Your task to perform on an android device: Show the shopping cart on bestbuy. Add "acer nitro" to the cart on bestbuy Image 0: 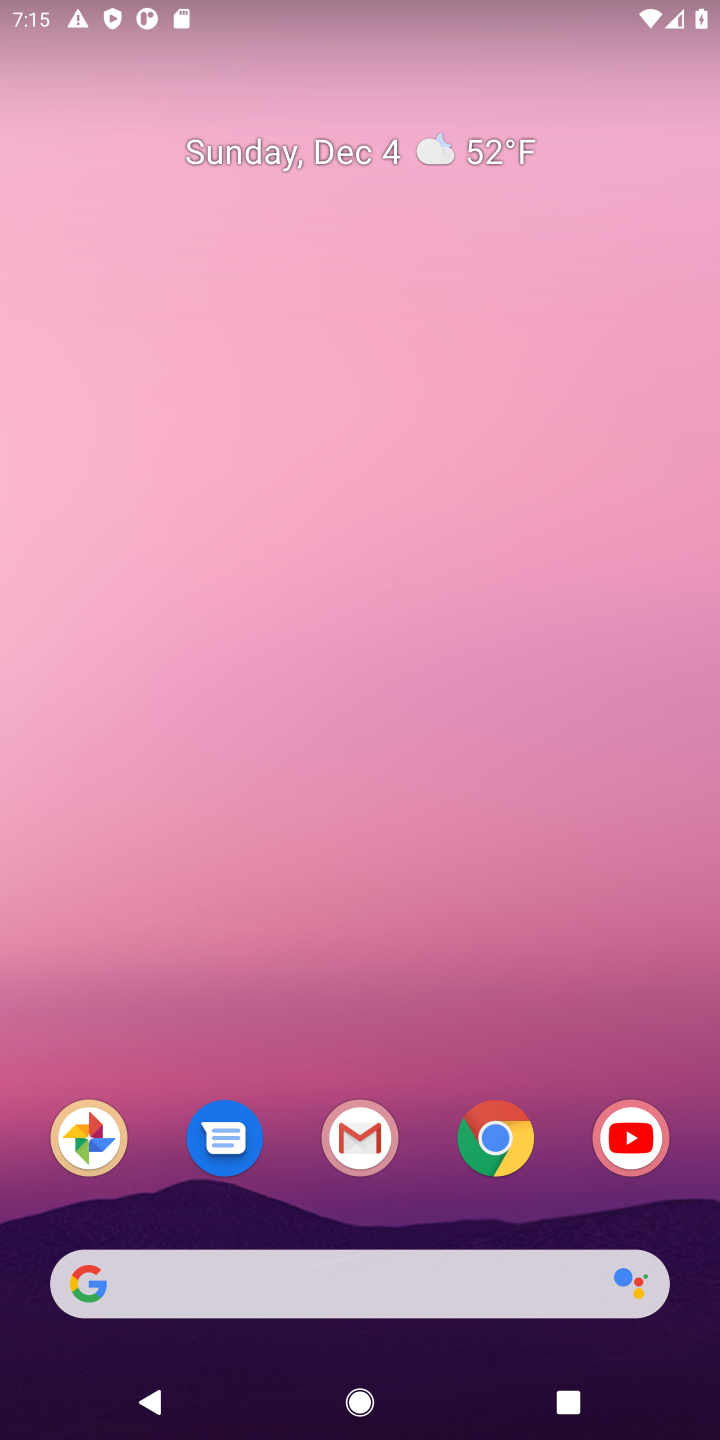
Step 0: click (503, 1139)
Your task to perform on an android device: Show the shopping cart on bestbuy. Add "acer nitro" to the cart on bestbuy Image 1: 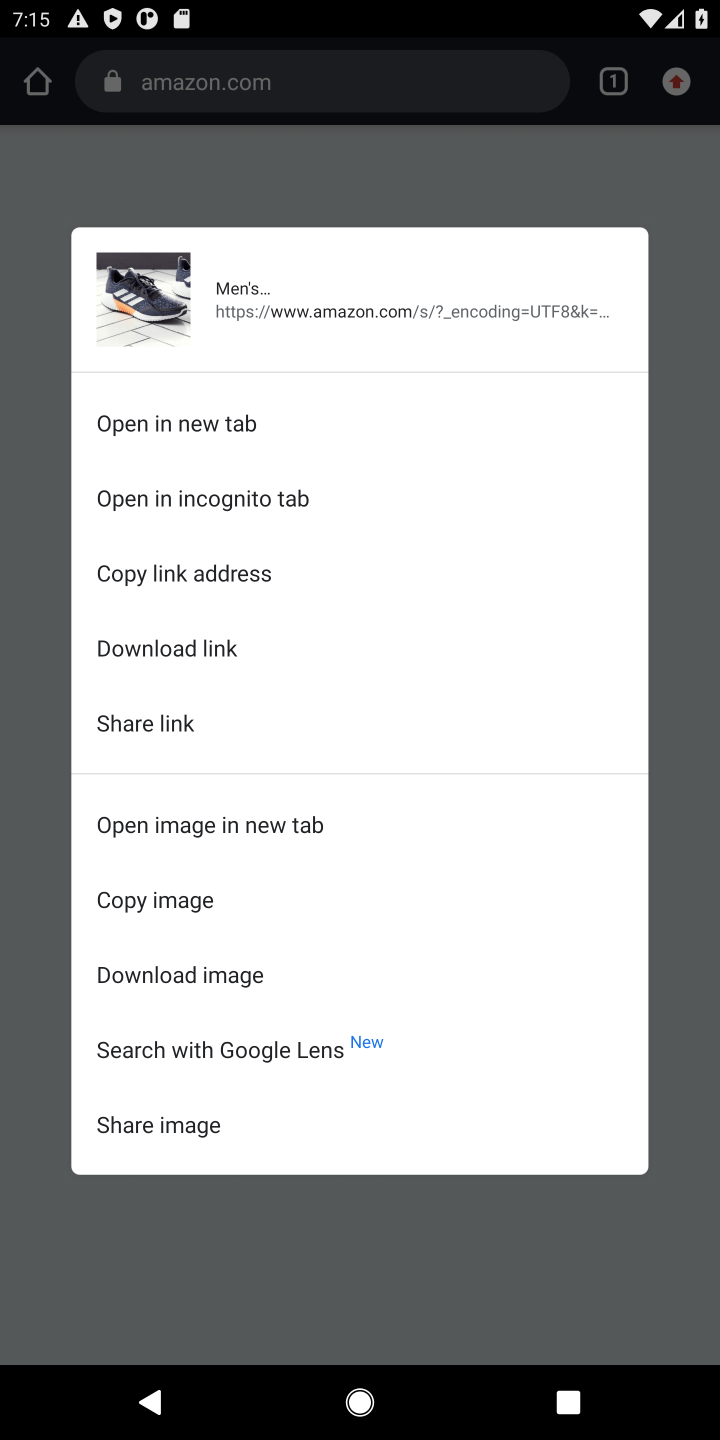
Step 1: click (512, 1251)
Your task to perform on an android device: Show the shopping cart on bestbuy. Add "acer nitro" to the cart on bestbuy Image 2: 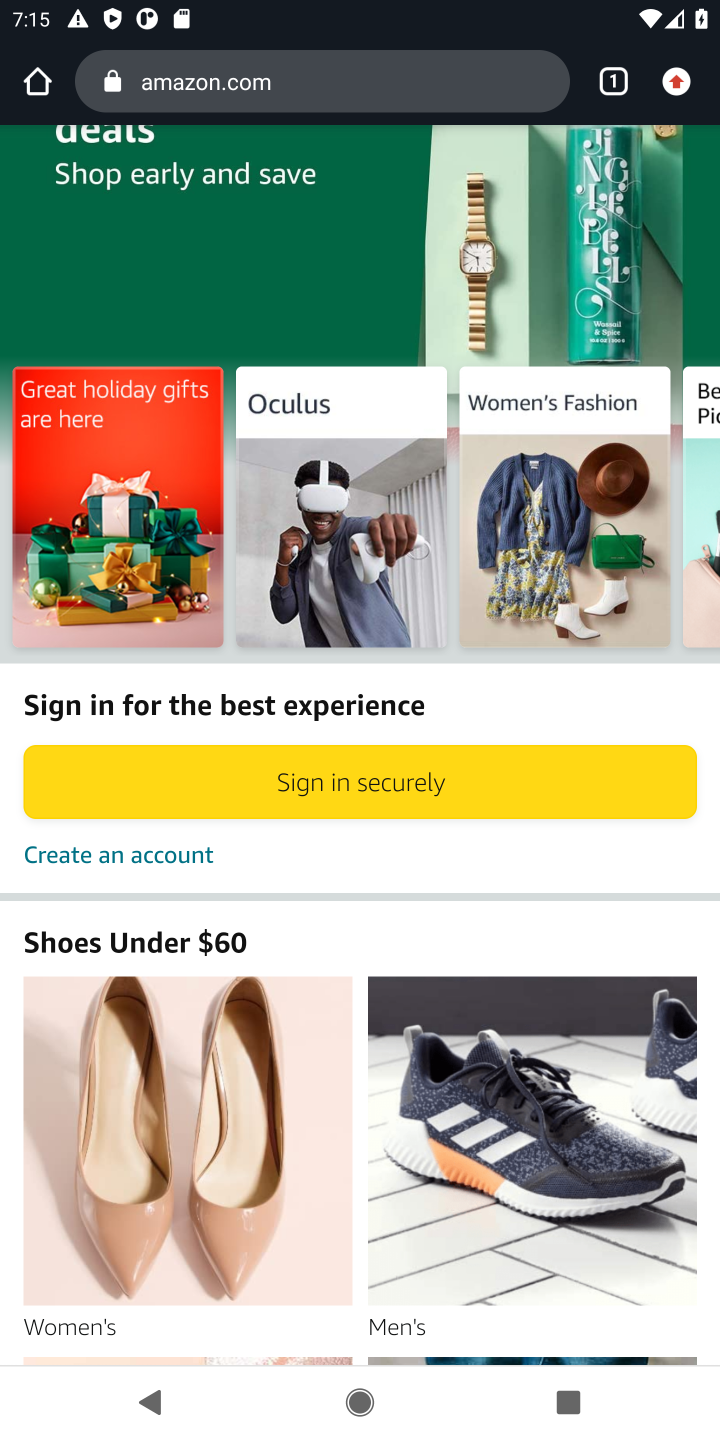
Step 2: click (512, 80)
Your task to perform on an android device: Show the shopping cart on bestbuy. Add "acer nitro" to the cart on bestbuy Image 3: 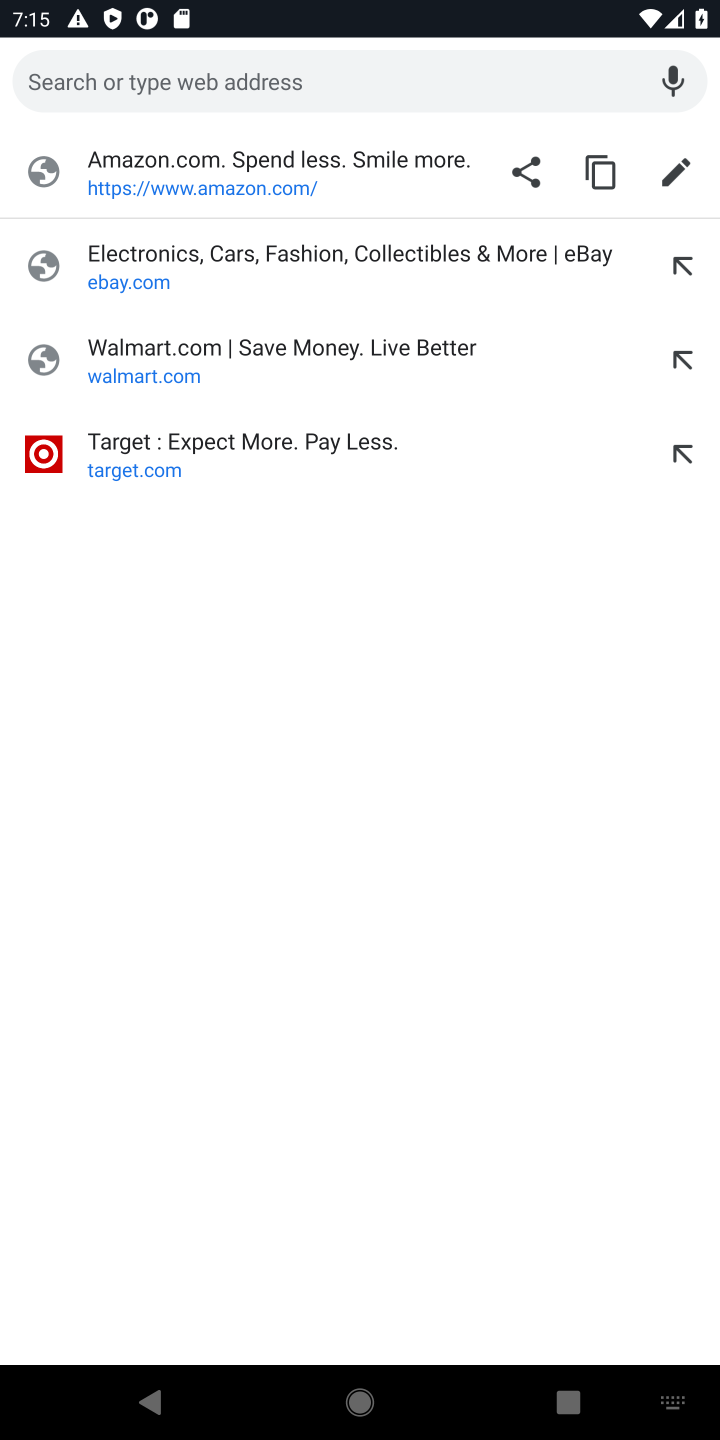
Step 3: type "bestbuy"
Your task to perform on an android device: Show the shopping cart on bestbuy. Add "acer nitro" to the cart on bestbuy Image 4: 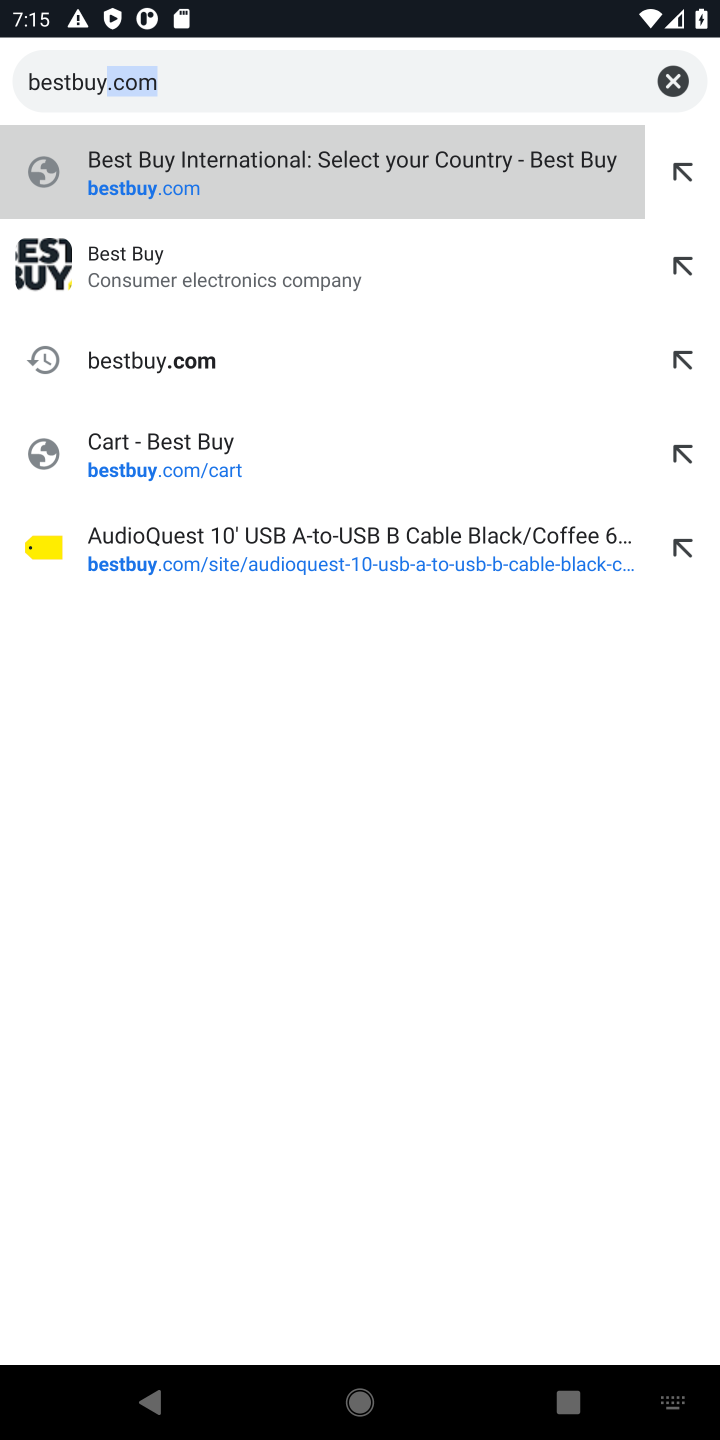
Step 4: press enter
Your task to perform on an android device: Show the shopping cart on bestbuy. Add "acer nitro" to the cart on bestbuy Image 5: 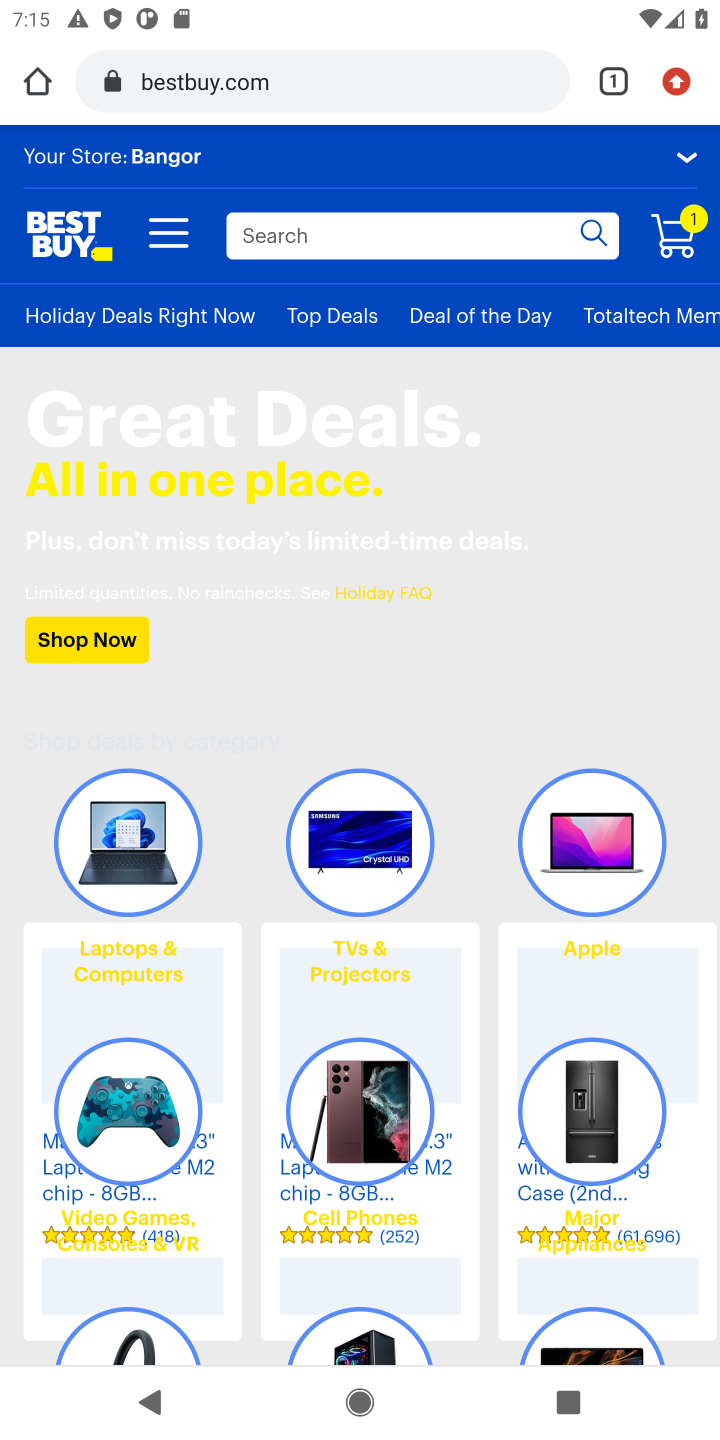
Step 5: click (401, 229)
Your task to perform on an android device: Show the shopping cart on bestbuy. Add "acer nitro" to the cart on bestbuy Image 6: 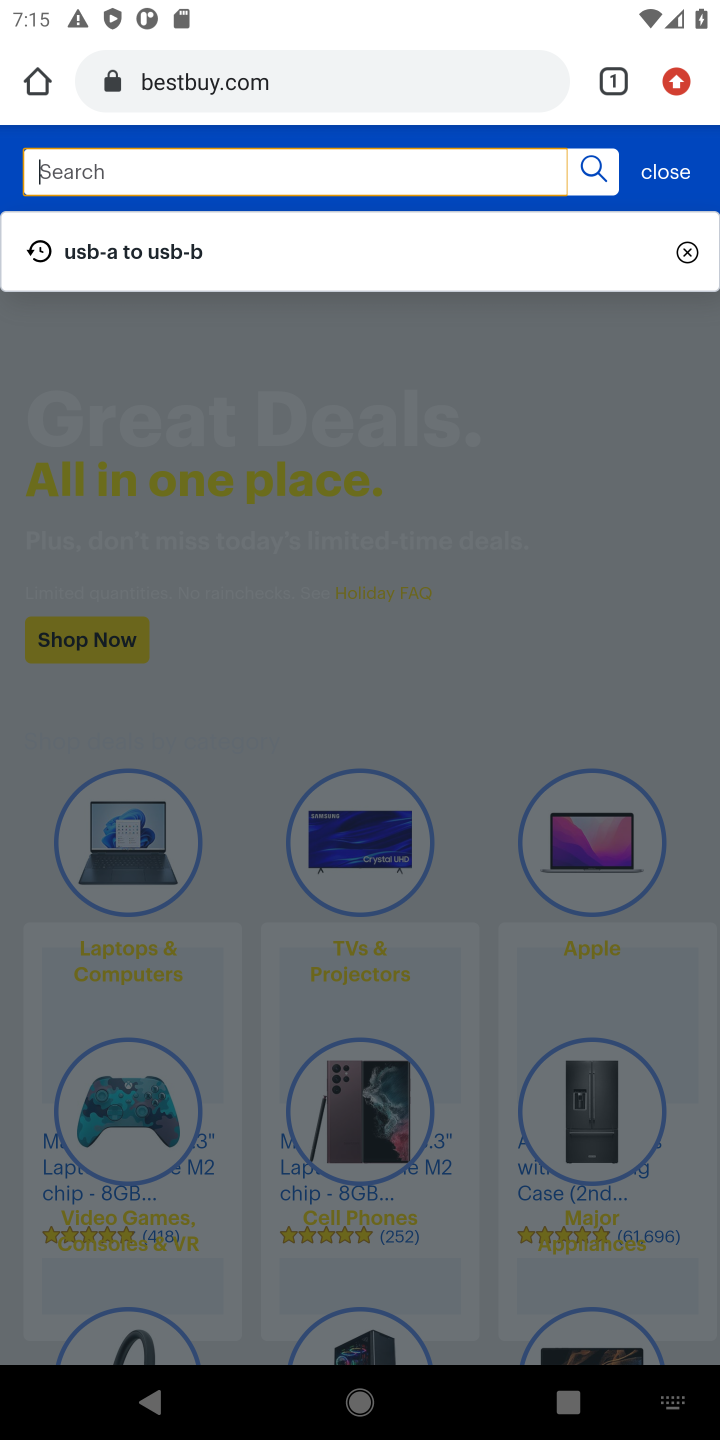
Step 6: press enter
Your task to perform on an android device: Show the shopping cart on bestbuy. Add "acer nitro" to the cart on bestbuy Image 7: 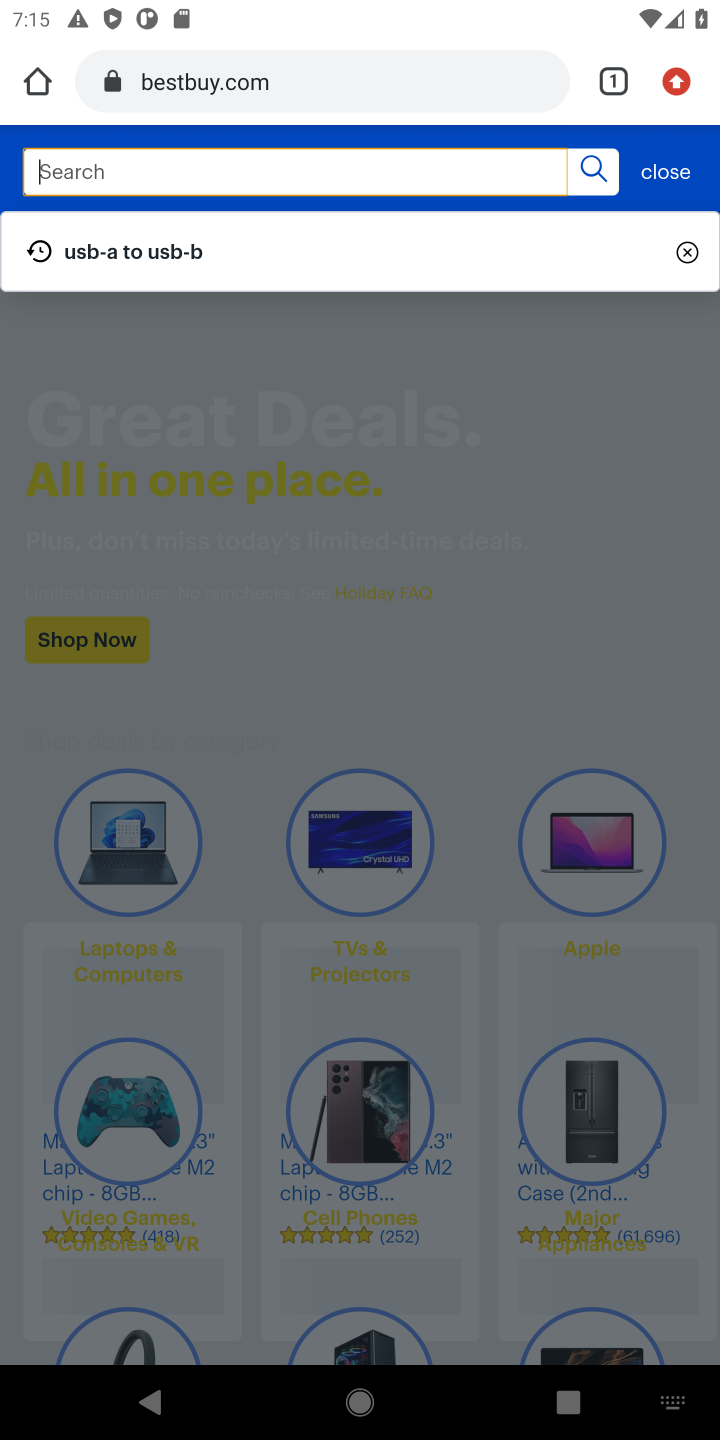
Step 7: type "acer nitro"
Your task to perform on an android device: Show the shopping cart on bestbuy. Add "acer nitro" to the cart on bestbuy Image 8: 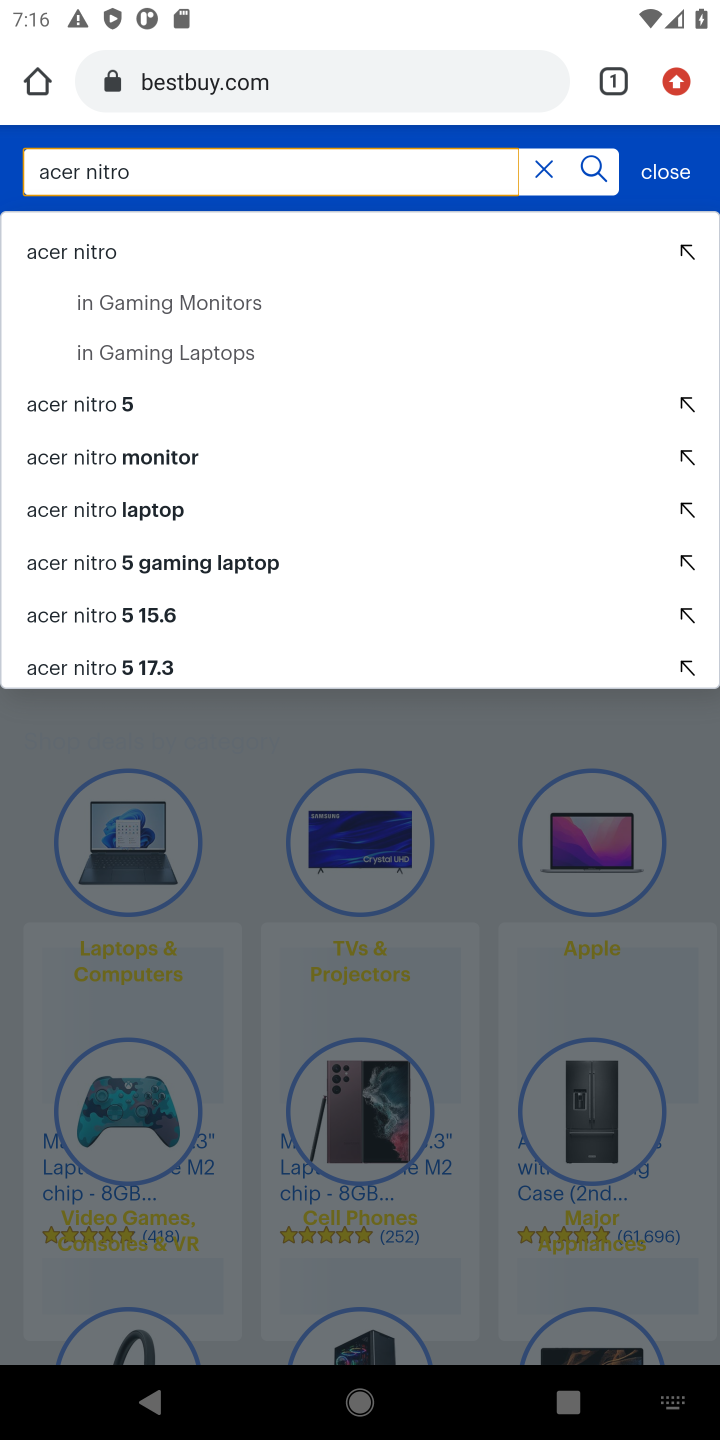
Step 8: click (79, 251)
Your task to perform on an android device: Show the shopping cart on bestbuy. Add "acer nitro" to the cart on bestbuy Image 9: 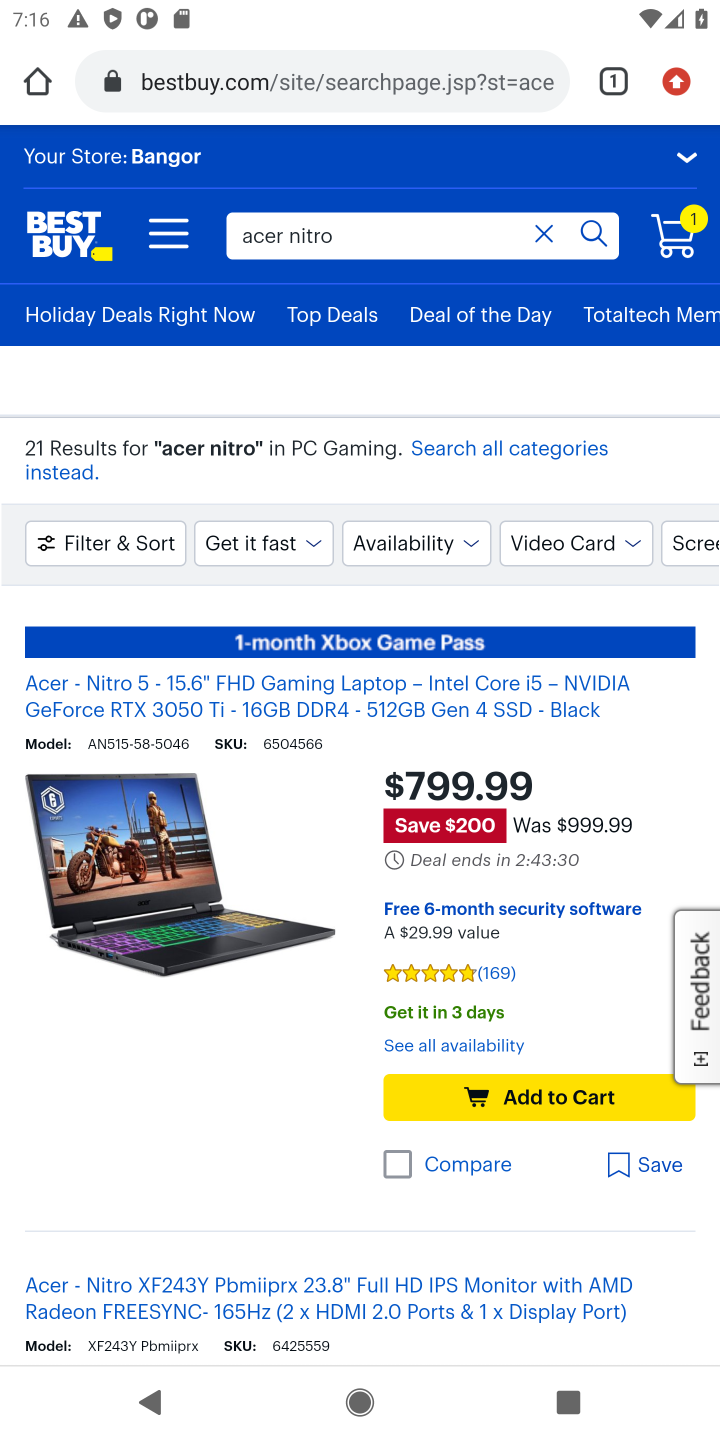
Step 9: click (125, 843)
Your task to perform on an android device: Show the shopping cart on bestbuy. Add "acer nitro" to the cart on bestbuy Image 10: 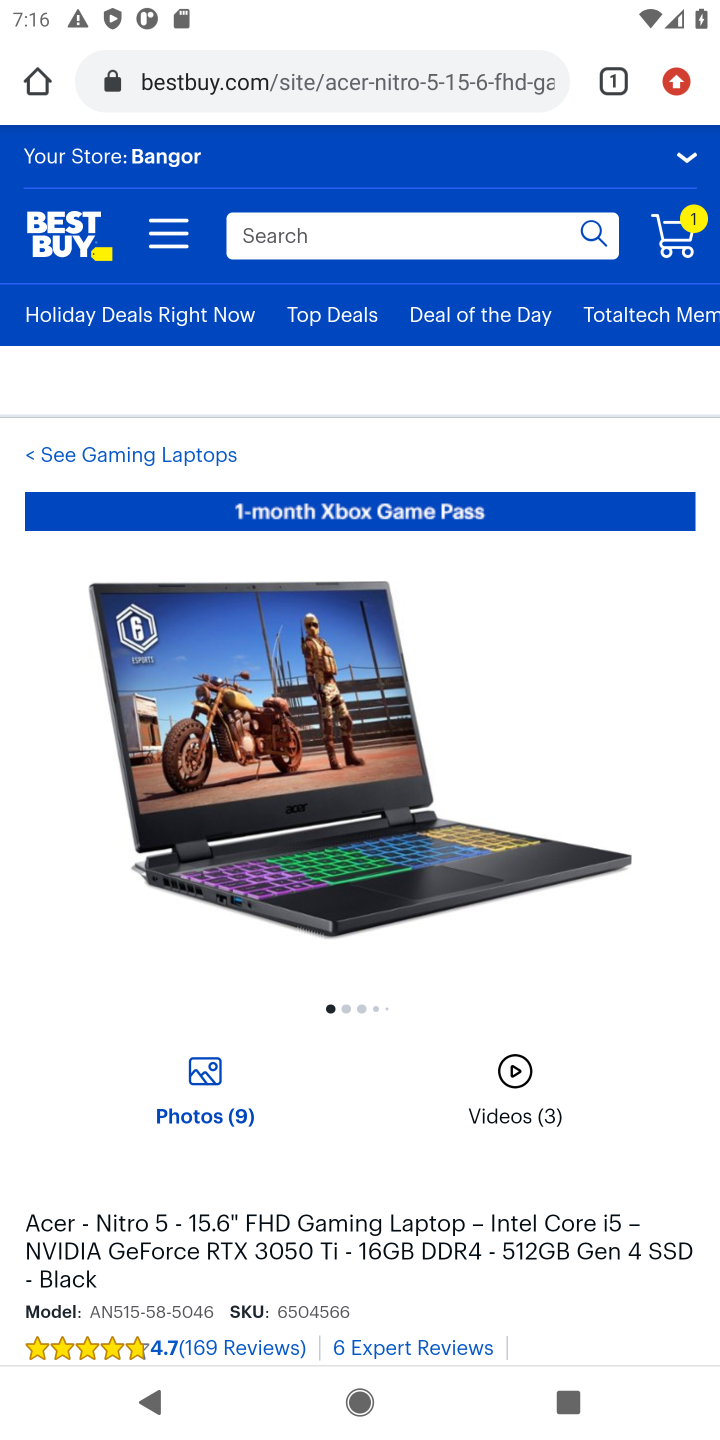
Step 10: drag from (617, 872) to (632, 217)
Your task to perform on an android device: Show the shopping cart on bestbuy. Add "acer nitro" to the cart on bestbuy Image 11: 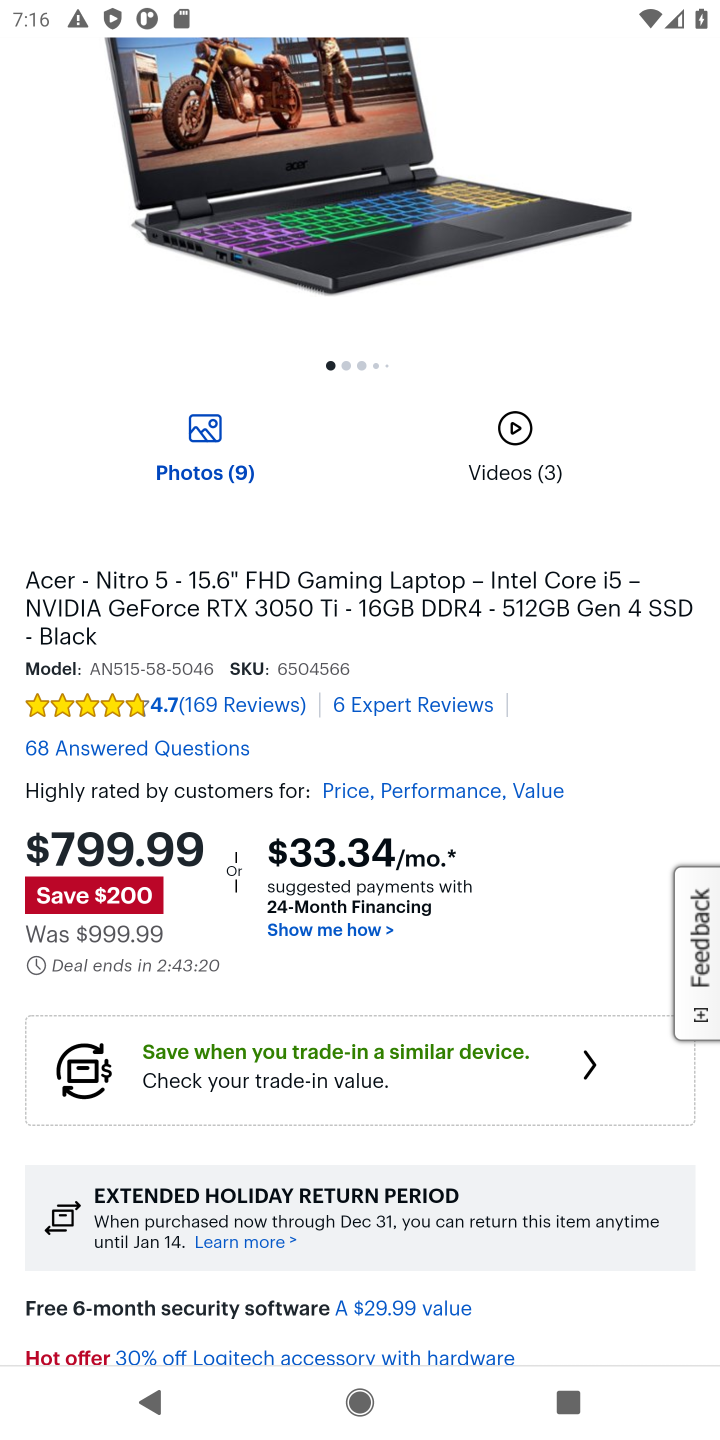
Step 11: drag from (573, 720) to (559, 217)
Your task to perform on an android device: Show the shopping cart on bestbuy. Add "acer nitro" to the cart on bestbuy Image 12: 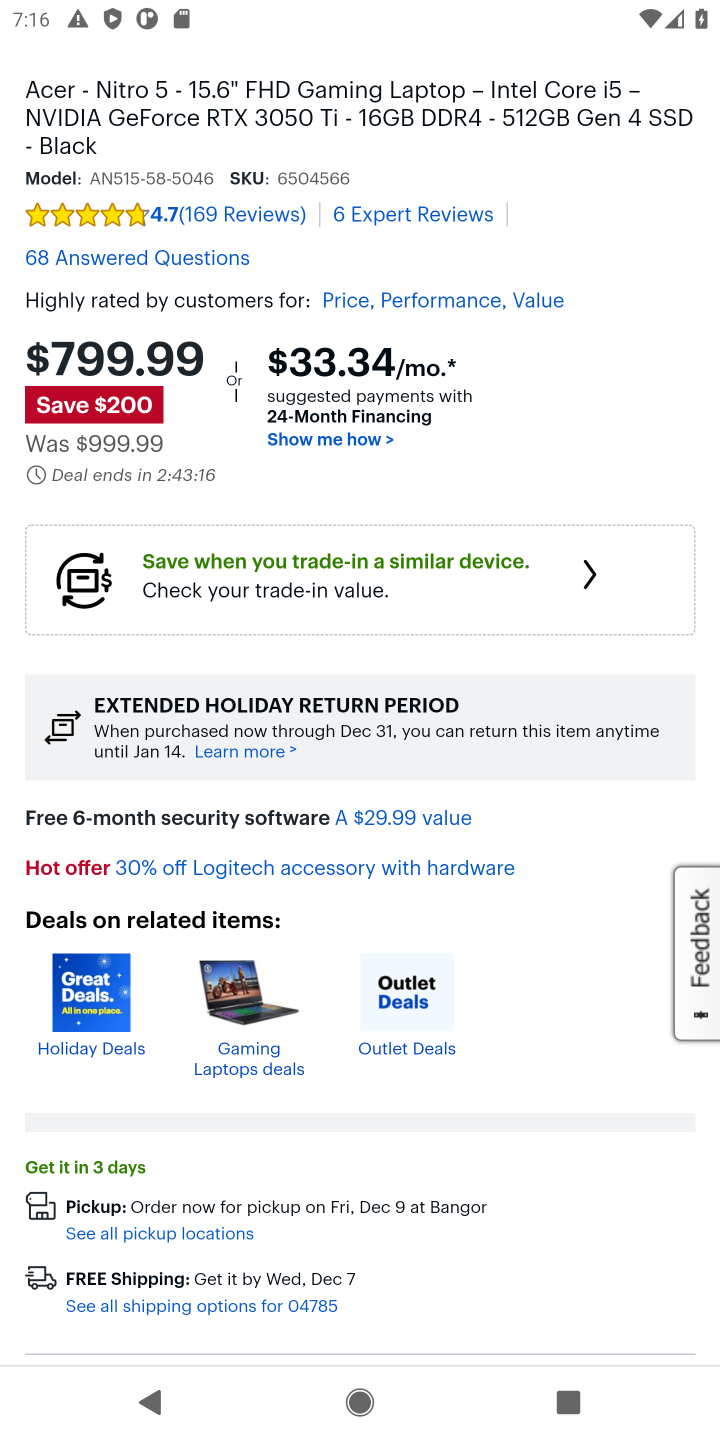
Step 12: drag from (583, 1009) to (582, 116)
Your task to perform on an android device: Show the shopping cart on bestbuy. Add "acer nitro" to the cart on bestbuy Image 13: 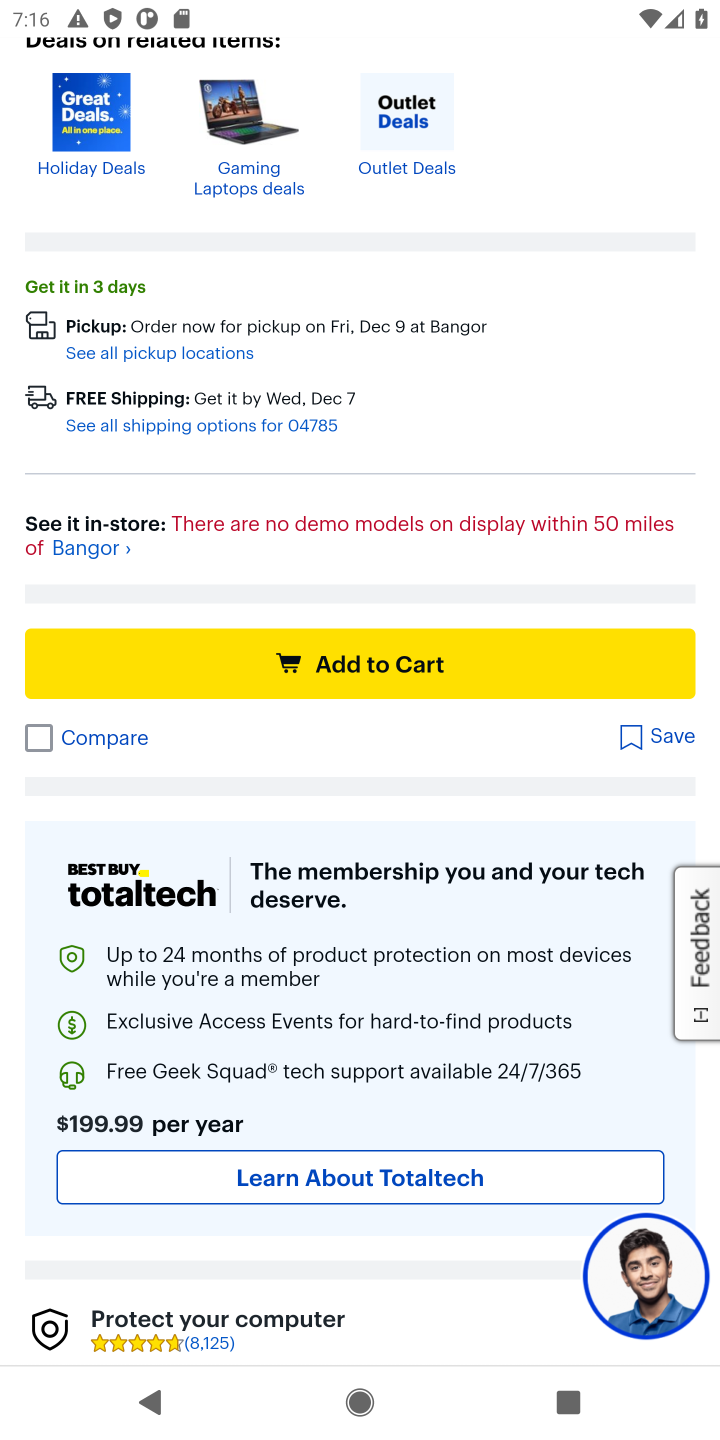
Step 13: click (399, 657)
Your task to perform on an android device: Show the shopping cart on bestbuy. Add "acer nitro" to the cart on bestbuy Image 14: 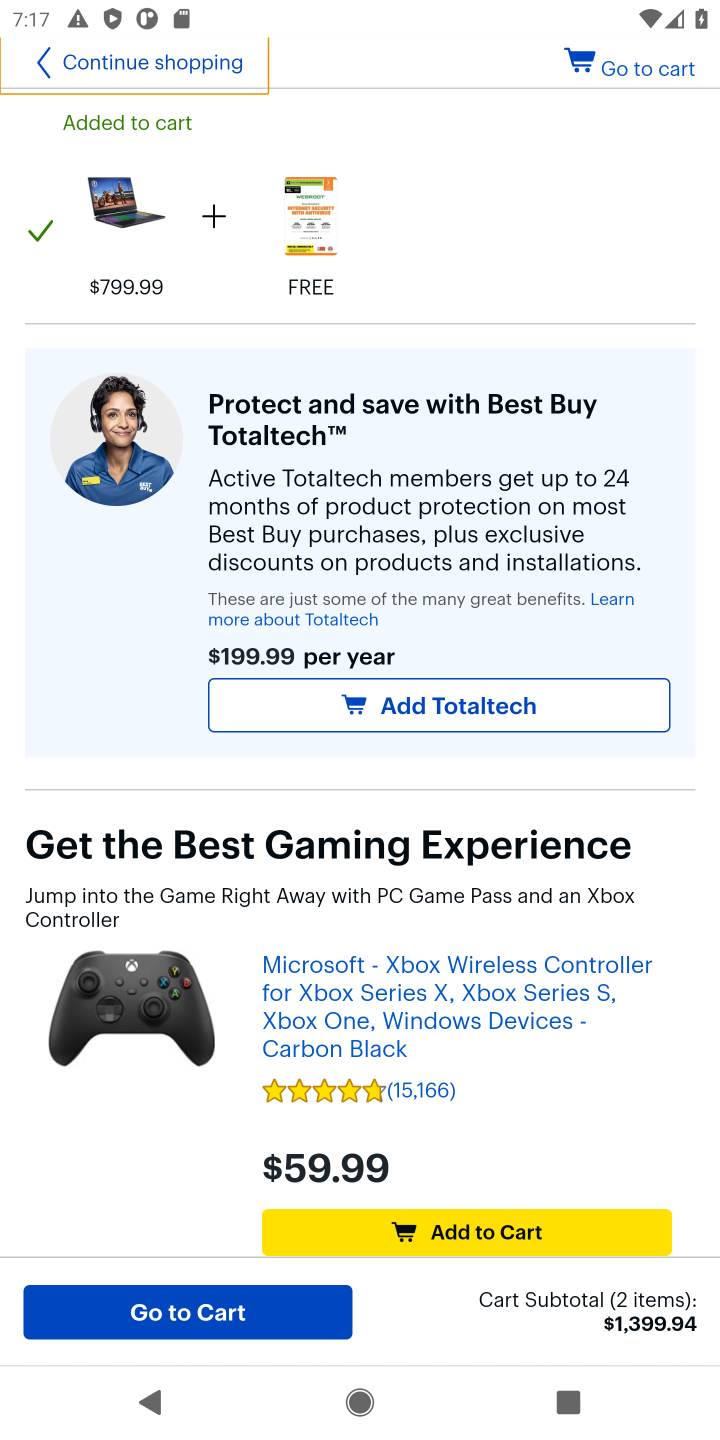
Step 14: click (221, 1306)
Your task to perform on an android device: Show the shopping cart on bestbuy. Add "acer nitro" to the cart on bestbuy Image 15: 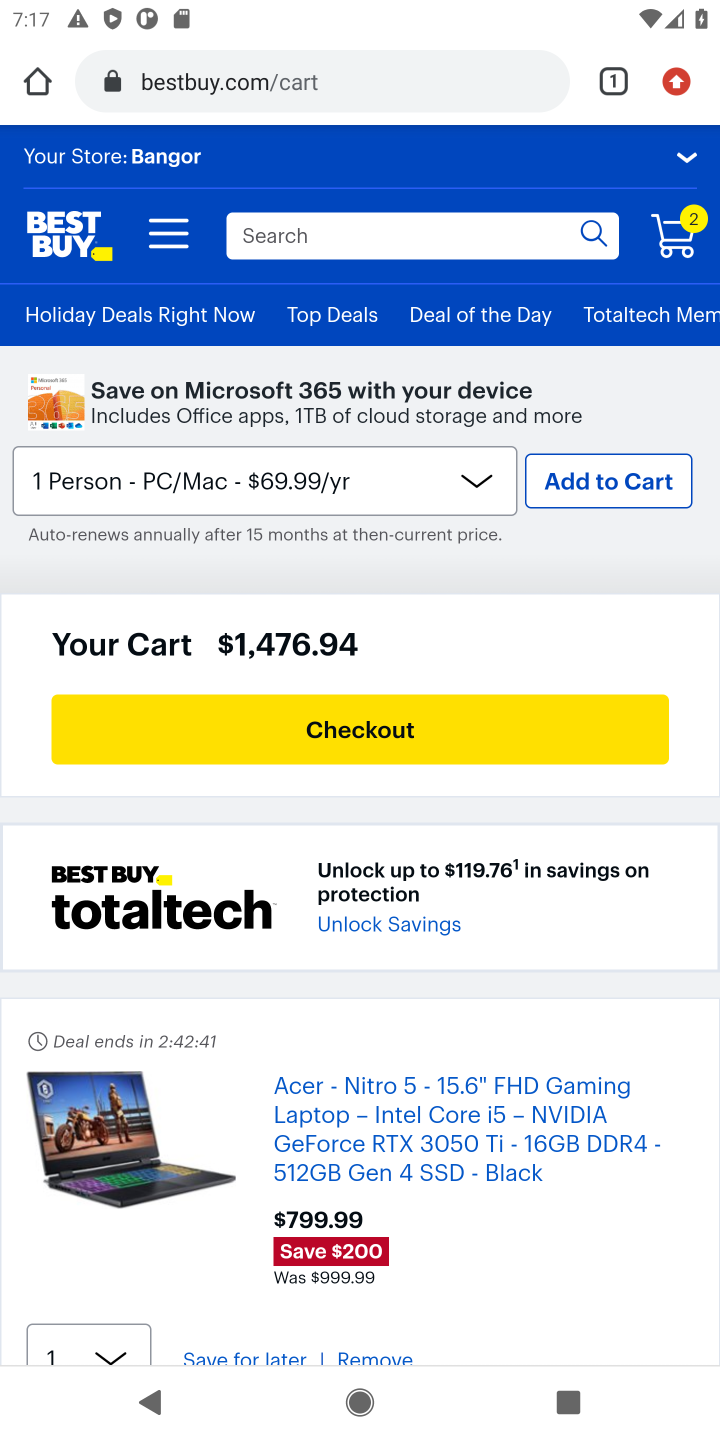
Step 15: task complete